Your task to perform on an android device: Open Chrome and go to settings Image 0: 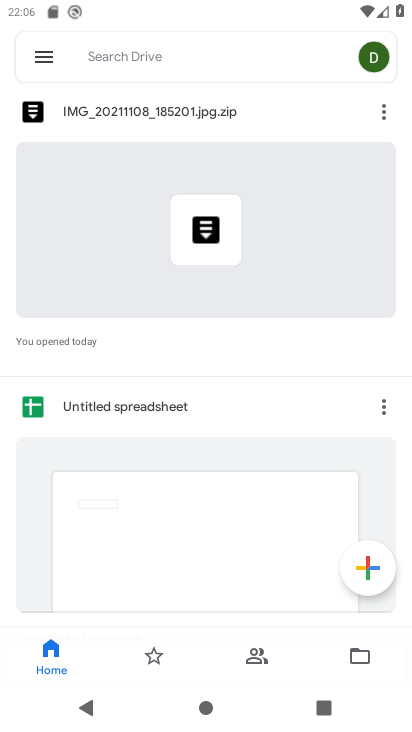
Step 0: press home button
Your task to perform on an android device: Open Chrome and go to settings Image 1: 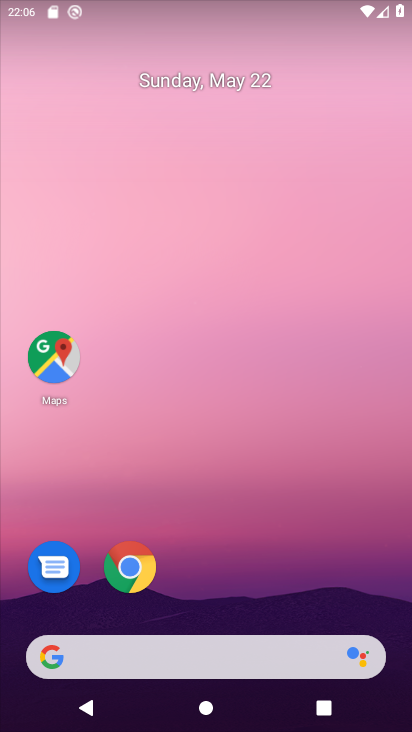
Step 1: click (123, 559)
Your task to perform on an android device: Open Chrome and go to settings Image 2: 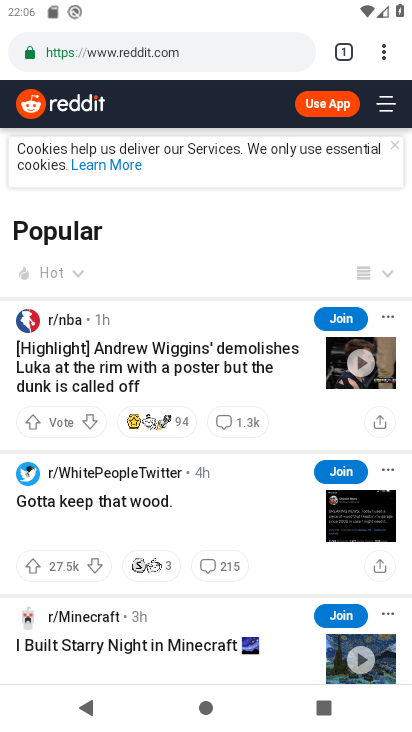
Step 2: click (381, 43)
Your task to perform on an android device: Open Chrome and go to settings Image 3: 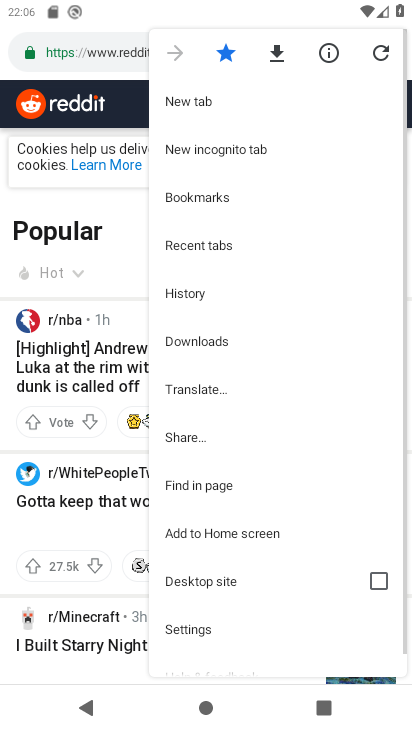
Step 3: drag from (262, 623) to (246, 82)
Your task to perform on an android device: Open Chrome and go to settings Image 4: 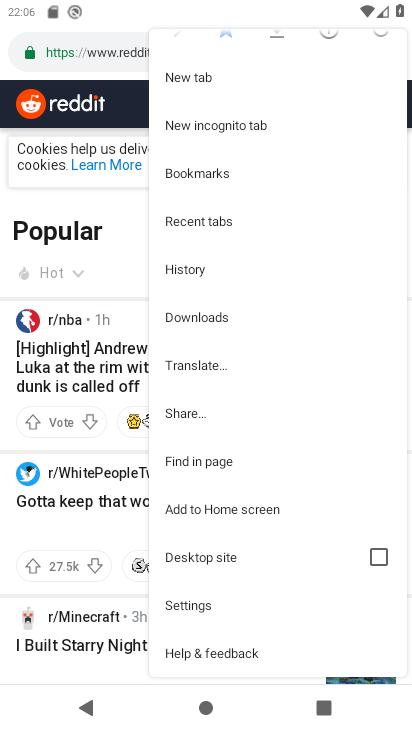
Step 4: click (216, 599)
Your task to perform on an android device: Open Chrome and go to settings Image 5: 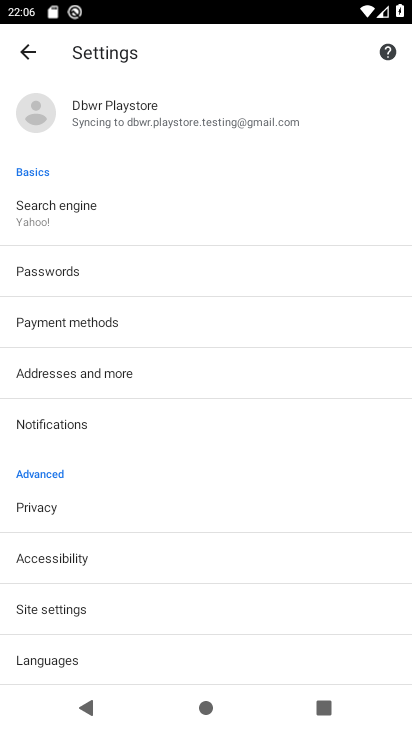
Step 5: task complete